Your task to perform on an android device: turn off notifications in google photos Image 0: 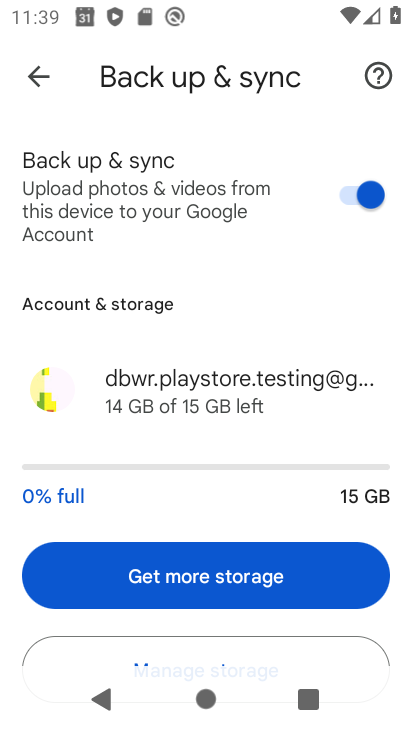
Step 0: press home button
Your task to perform on an android device: turn off notifications in google photos Image 1: 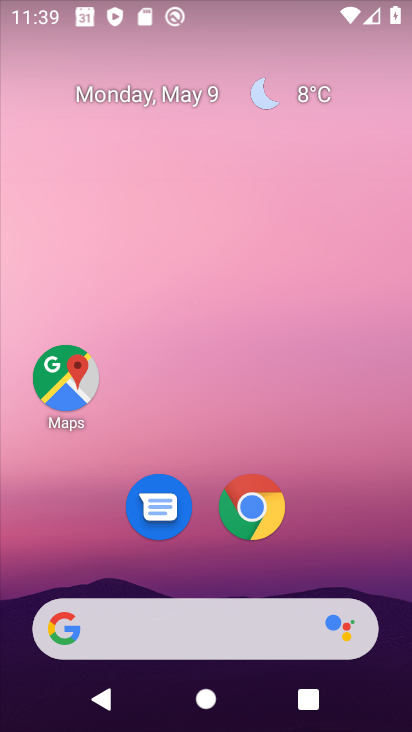
Step 1: drag from (336, 571) to (235, 88)
Your task to perform on an android device: turn off notifications in google photos Image 2: 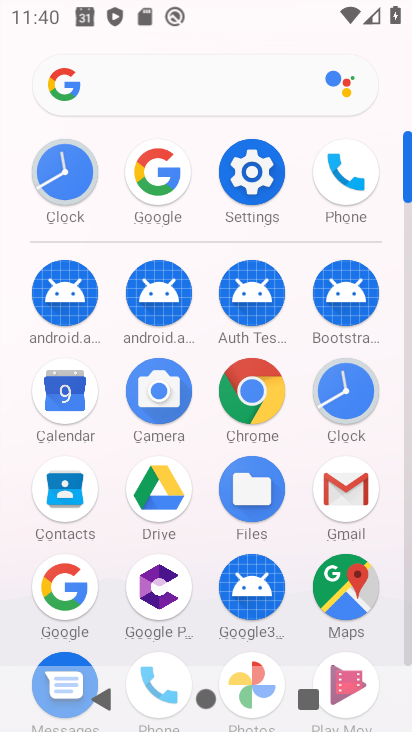
Step 2: drag from (281, 631) to (255, 295)
Your task to perform on an android device: turn off notifications in google photos Image 3: 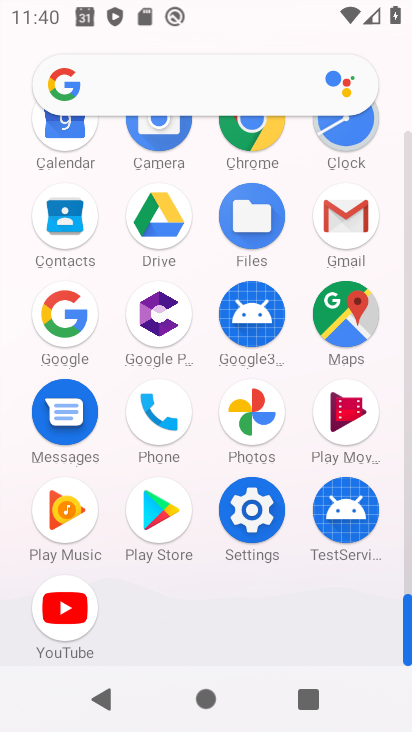
Step 3: click (256, 417)
Your task to perform on an android device: turn off notifications in google photos Image 4: 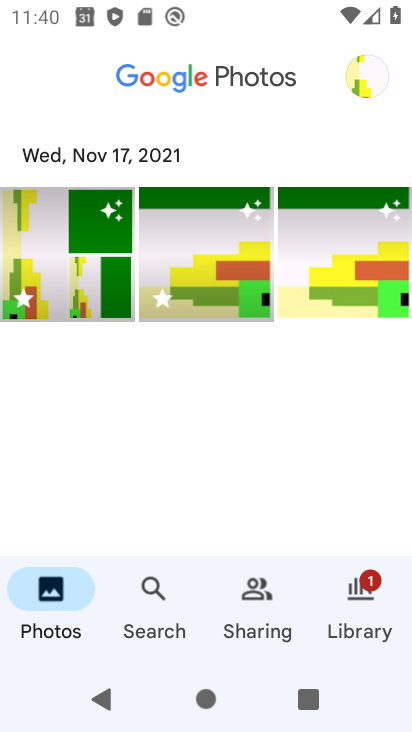
Step 4: click (357, 81)
Your task to perform on an android device: turn off notifications in google photos Image 5: 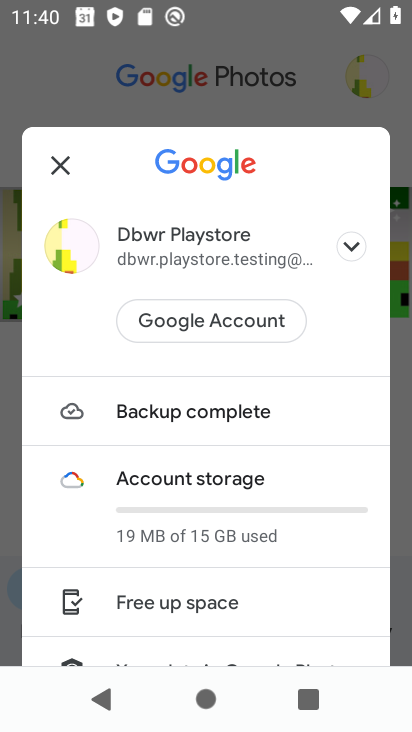
Step 5: drag from (222, 575) to (216, 308)
Your task to perform on an android device: turn off notifications in google photos Image 6: 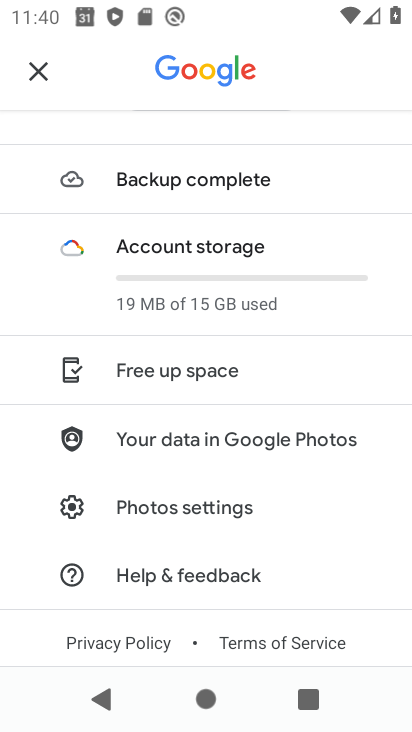
Step 6: click (202, 515)
Your task to perform on an android device: turn off notifications in google photos Image 7: 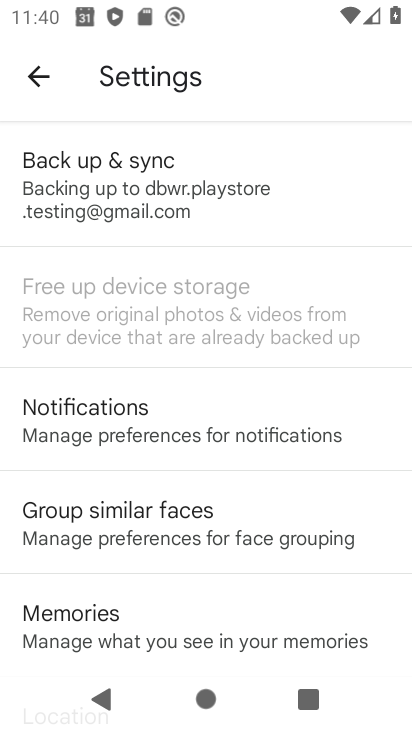
Step 7: click (195, 419)
Your task to perform on an android device: turn off notifications in google photos Image 8: 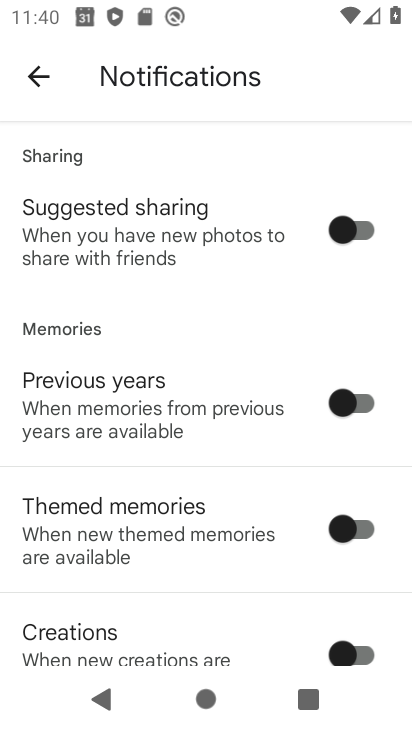
Step 8: drag from (210, 565) to (199, 252)
Your task to perform on an android device: turn off notifications in google photos Image 9: 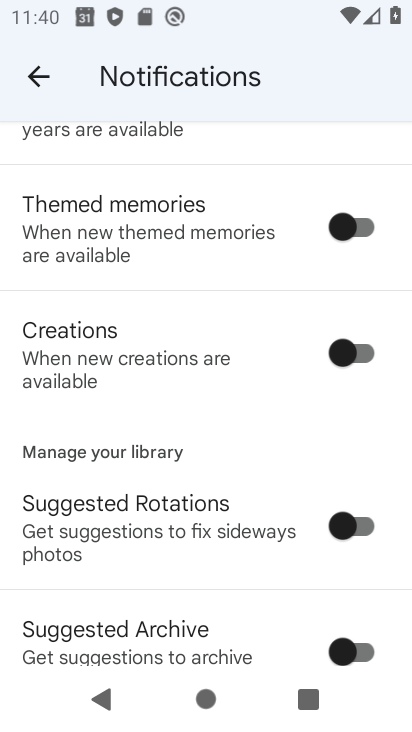
Step 9: drag from (201, 575) to (190, 238)
Your task to perform on an android device: turn off notifications in google photos Image 10: 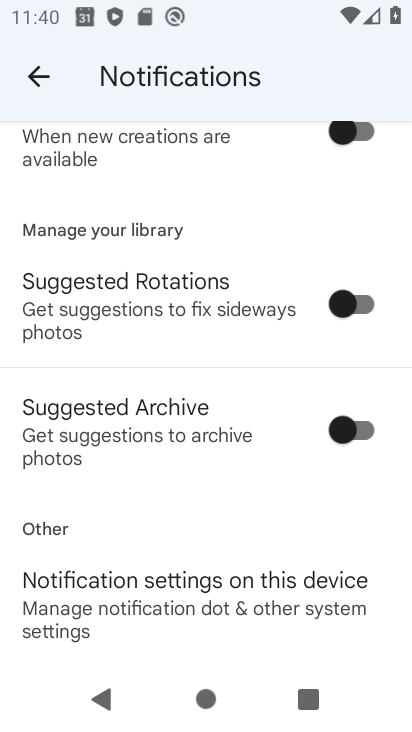
Step 10: click (220, 593)
Your task to perform on an android device: turn off notifications in google photos Image 11: 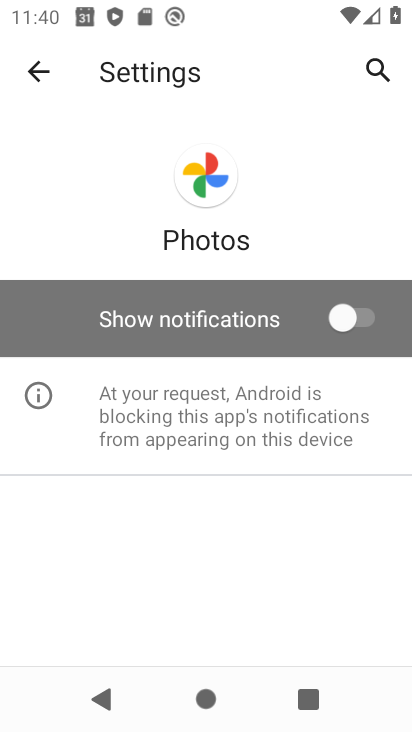
Step 11: task complete